Your task to perform on an android device: turn vacation reply on in the gmail app Image 0: 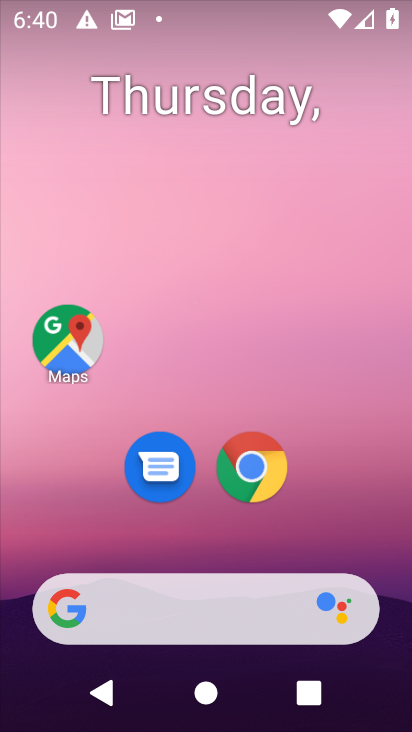
Step 0: drag from (279, 335) to (285, 132)
Your task to perform on an android device: turn vacation reply on in the gmail app Image 1: 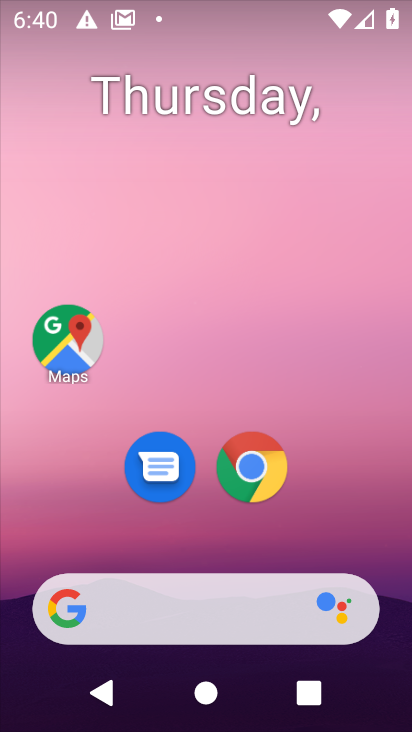
Step 1: task complete